Your task to perform on an android device: open app "Pinterest" (install if not already installed) Image 0: 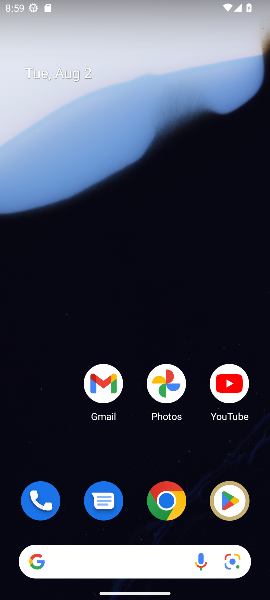
Step 0: drag from (120, 453) to (181, 158)
Your task to perform on an android device: open app "Pinterest" (install if not already installed) Image 1: 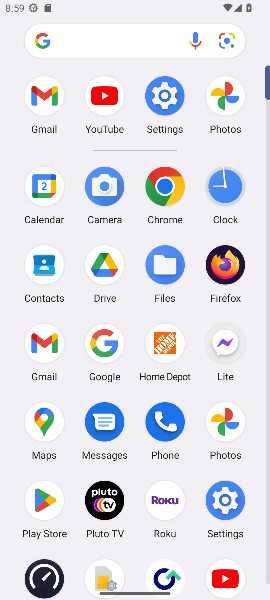
Step 1: click (47, 493)
Your task to perform on an android device: open app "Pinterest" (install if not already installed) Image 2: 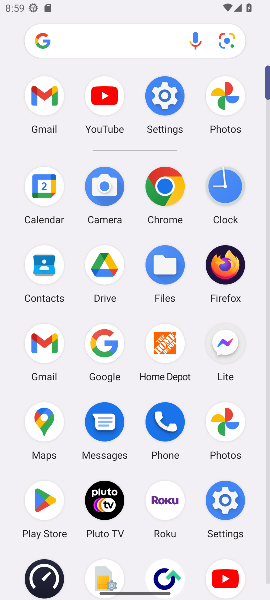
Step 2: click (47, 493)
Your task to perform on an android device: open app "Pinterest" (install if not already installed) Image 3: 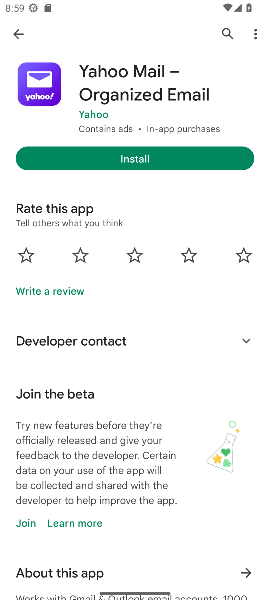
Step 3: drag from (122, 508) to (148, 180)
Your task to perform on an android device: open app "Pinterest" (install if not already installed) Image 4: 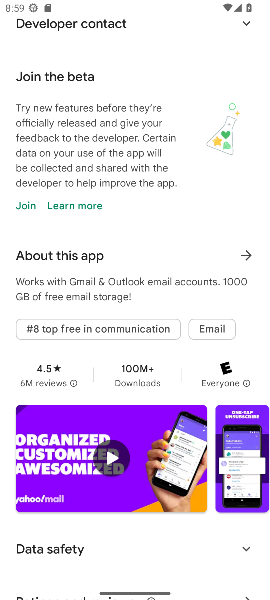
Step 4: drag from (131, 236) to (127, 388)
Your task to perform on an android device: open app "Pinterest" (install if not already installed) Image 5: 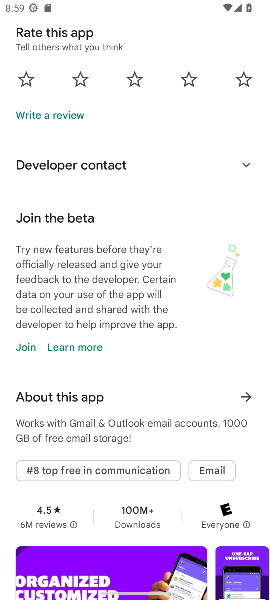
Step 5: click (228, 33)
Your task to perform on an android device: open app "Pinterest" (install if not already installed) Image 6: 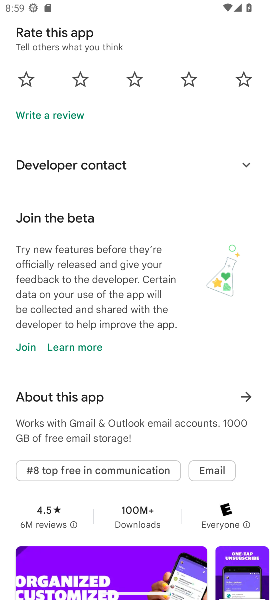
Step 6: drag from (227, 32) to (173, 586)
Your task to perform on an android device: open app "Pinterest" (install if not already installed) Image 7: 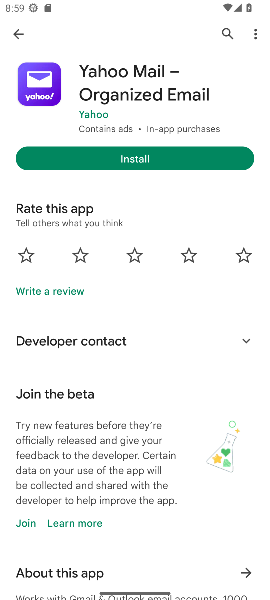
Step 7: click (225, 31)
Your task to perform on an android device: open app "Pinterest" (install if not already installed) Image 8: 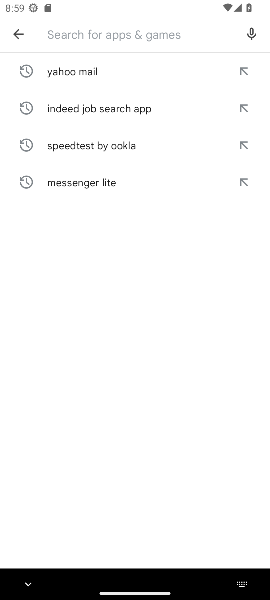
Step 8: type "Pinterest"
Your task to perform on an android device: open app "Pinterest" (install if not already installed) Image 9: 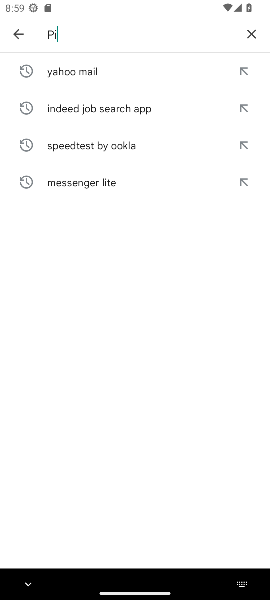
Step 9: type ""
Your task to perform on an android device: open app "Pinterest" (install if not already installed) Image 10: 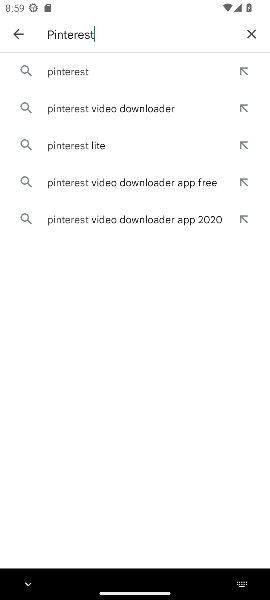
Step 10: click (92, 69)
Your task to perform on an android device: open app "Pinterest" (install if not already installed) Image 11: 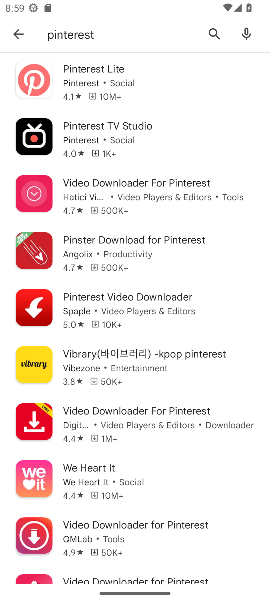
Step 11: click (87, 84)
Your task to perform on an android device: open app "Pinterest" (install if not already installed) Image 12: 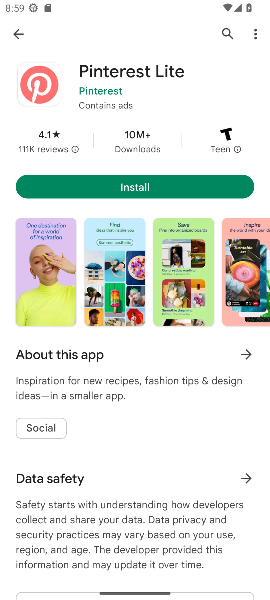
Step 12: click (15, 37)
Your task to perform on an android device: open app "Pinterest" (install if not already installed) Image 13: 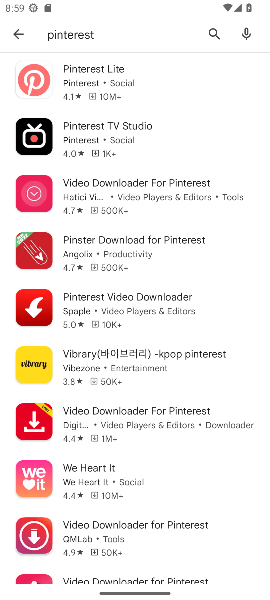
Step 13: click (123, 77)
Your task to perform on an android device: open app "Pinterest" (install if not already installed) Image 14: 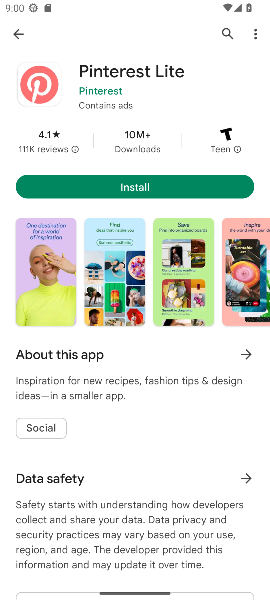
Step 14: task complete